Your task to perform on an android device: Check the weather Image 0: 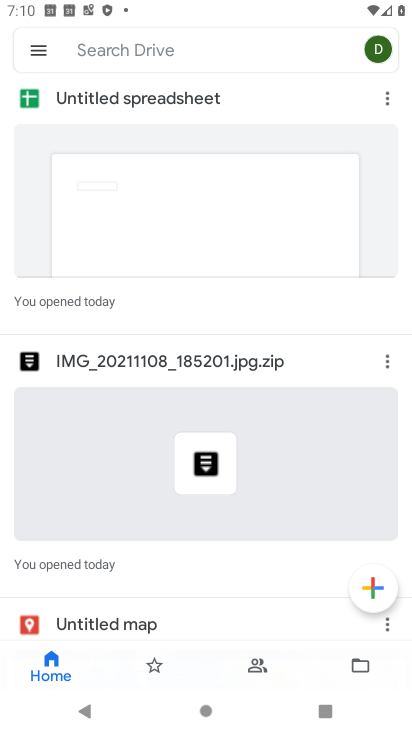
Step 0: press home button
Your task to perform on an android device: Check the weather Image 1: 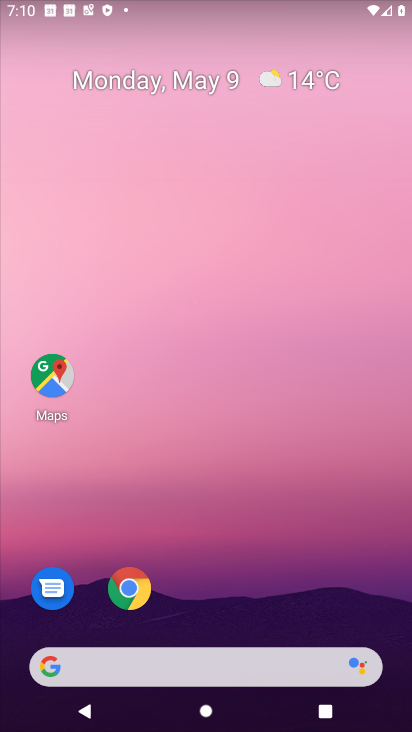
Step 1: click (195, 656)
Your task to perform on an android device: Check the weather Image 2: 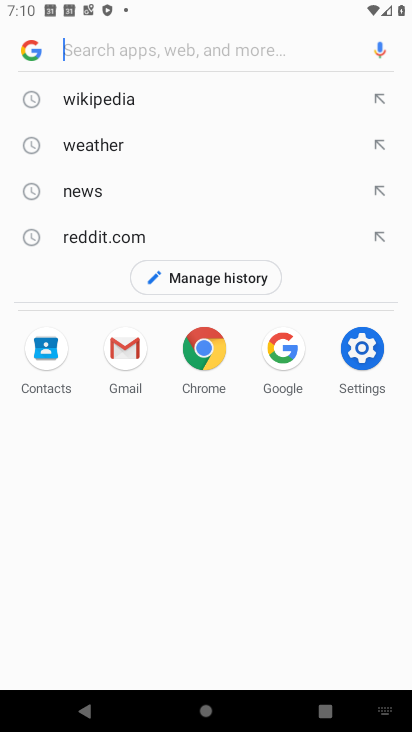
Step 2: click (93, 161)
Your task to perform on an android device: Check the weather Image 3: 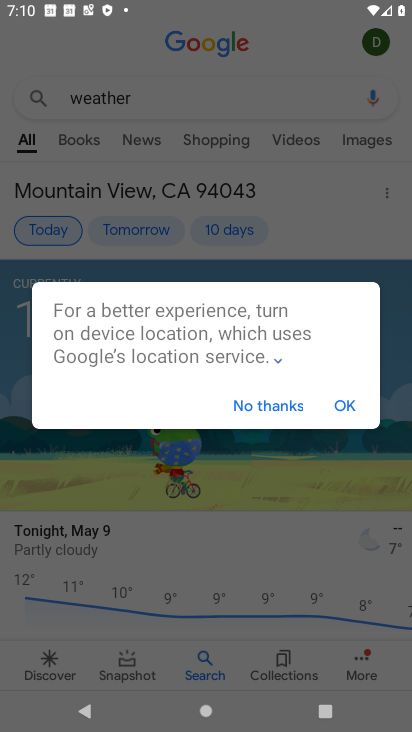
Step 3: click (274, 403)
Your task to perform on an android device: Check the weather Image 4: 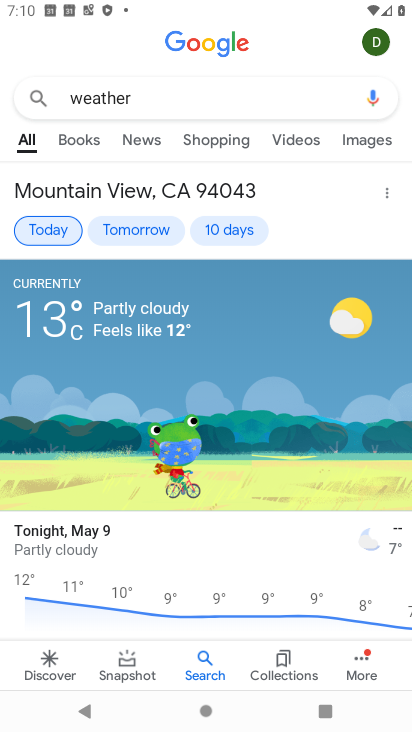
Step 4: task complete